Your task to perform on an android device: open app "ColorNote Notepad Notes" Image 0: 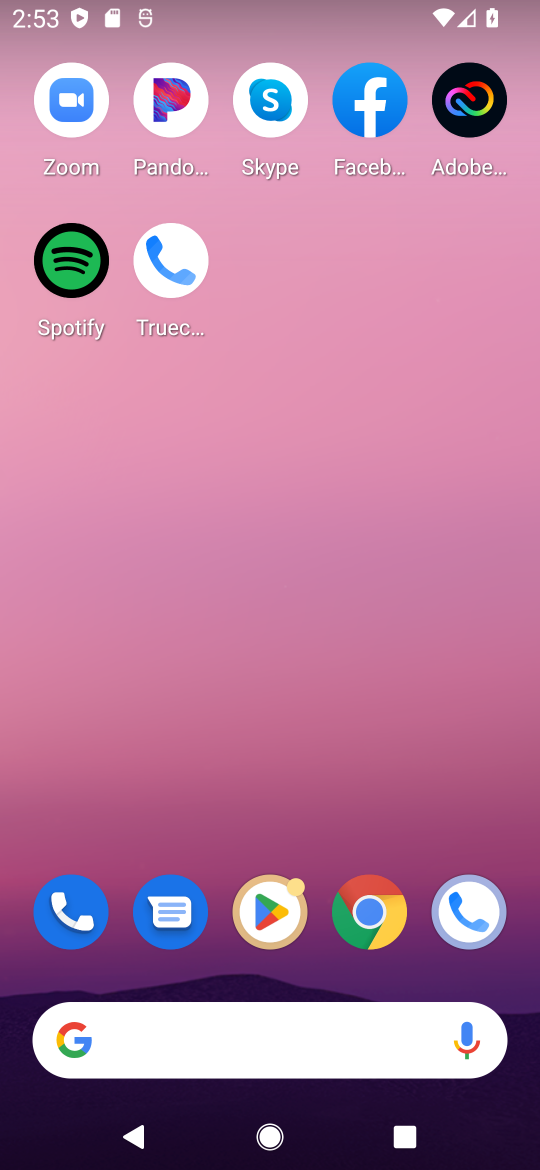
Step 0: drag from (179, 1060) to (215, 242)
Your task to perform on an android device: open app "ColorNote Notepad Notes" Image 1: 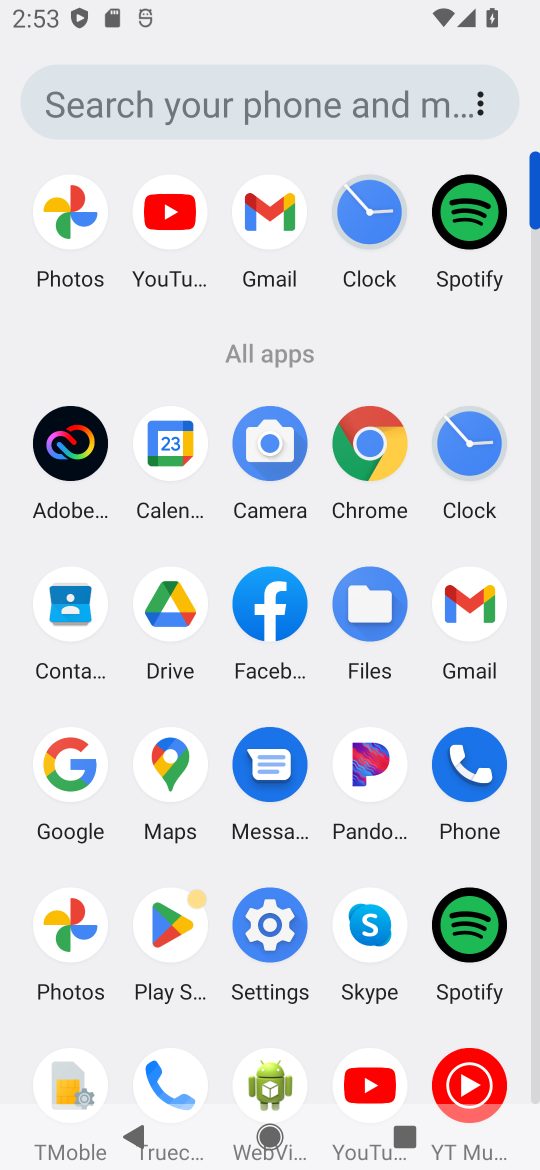
Step 1: click (178, 929)
Your task to perform on an android device: open app "ColorNote Notepad Notes" Image 2: 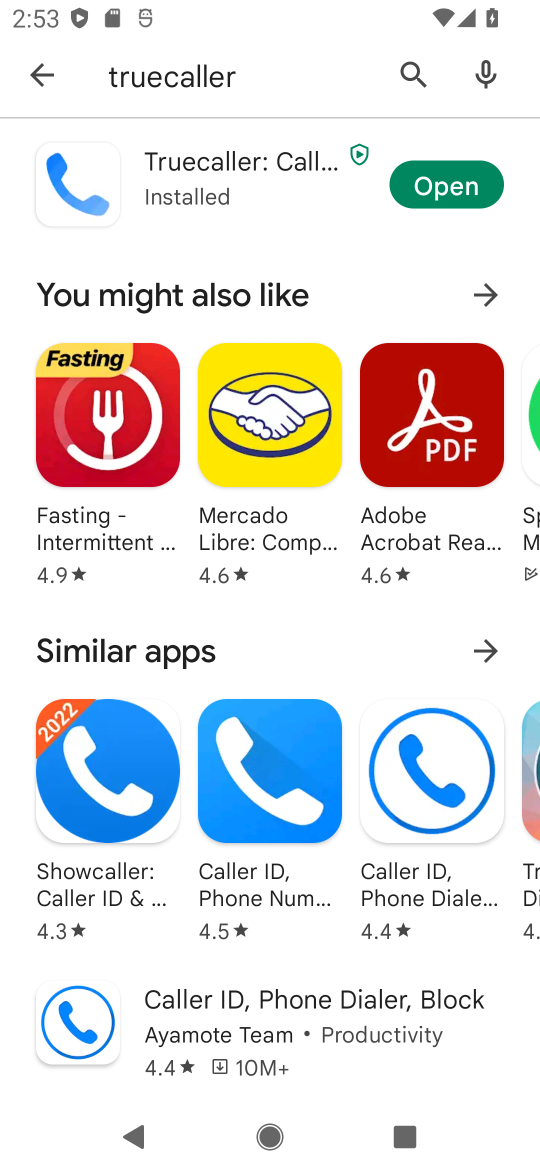
Step 2: press back button
Your task to perform on an android device: open app "ColorNote Notepad Notes" Image 3: 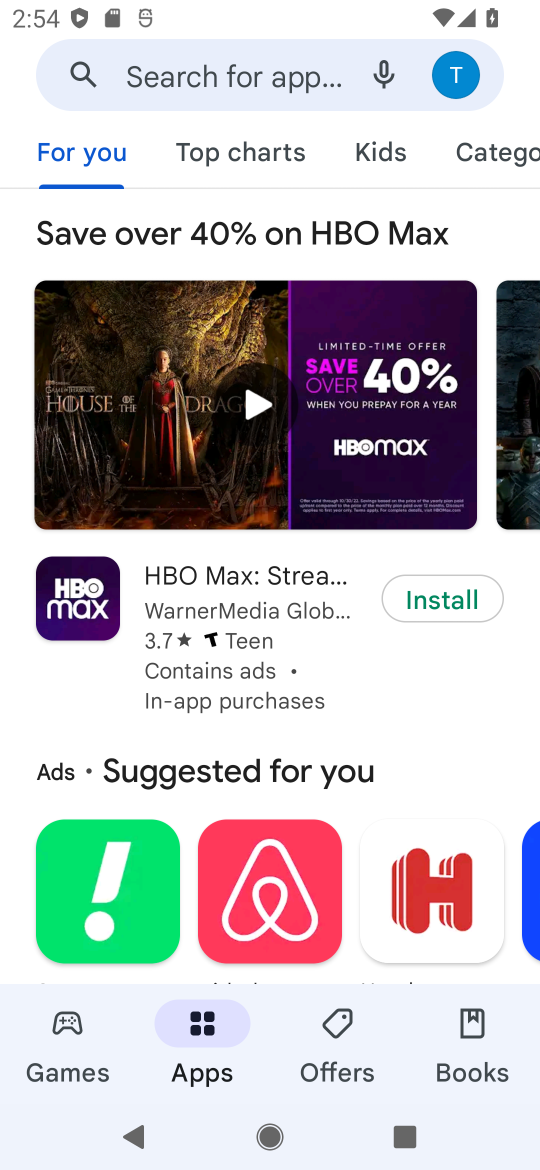
Step 3: click (256, 64)
Your task to perform on an android device: open app "ColorNote Notepad Notes" Image 4: 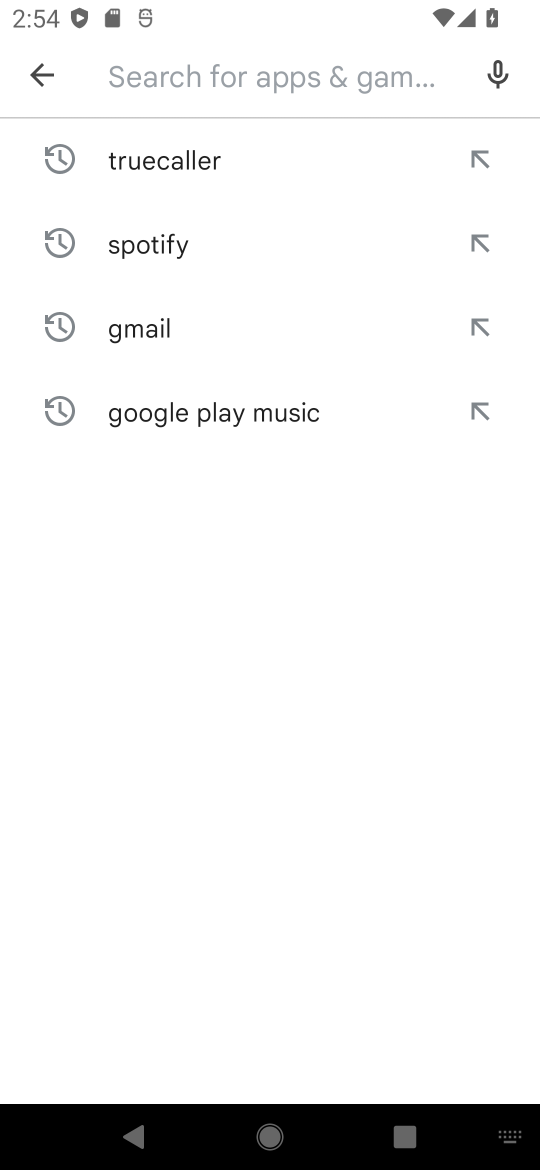
Step 4: click (171, 71)
Your task to perform on an android device: open app "ColorNote Notepad Notes" Image 5: 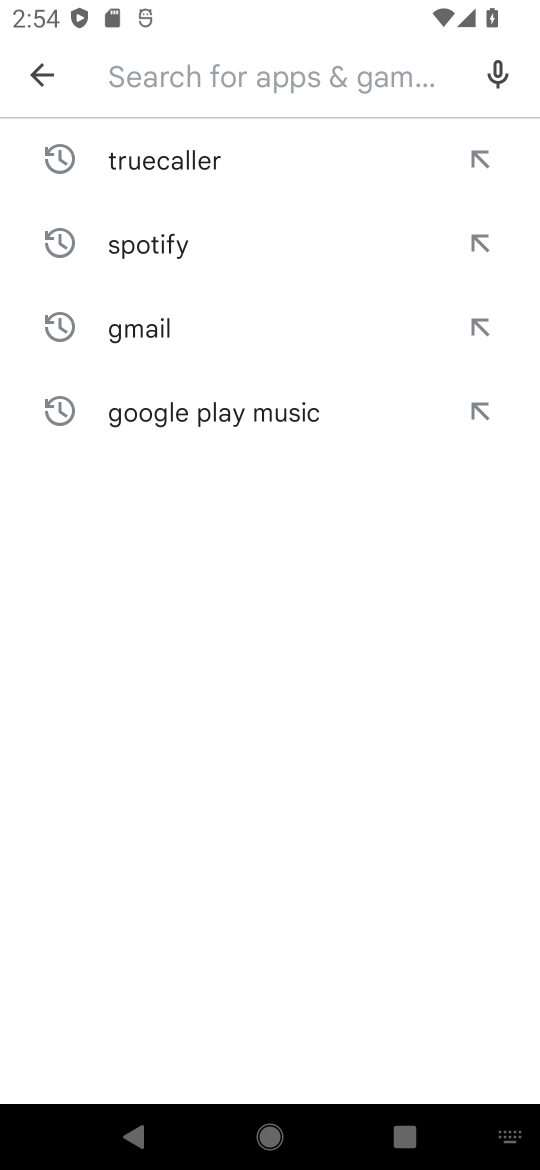
Step 5: type "ColorNote Notepad Notes"
Your task to perform on an android device: open app "ColorNote Notepad Notes" Image 6: 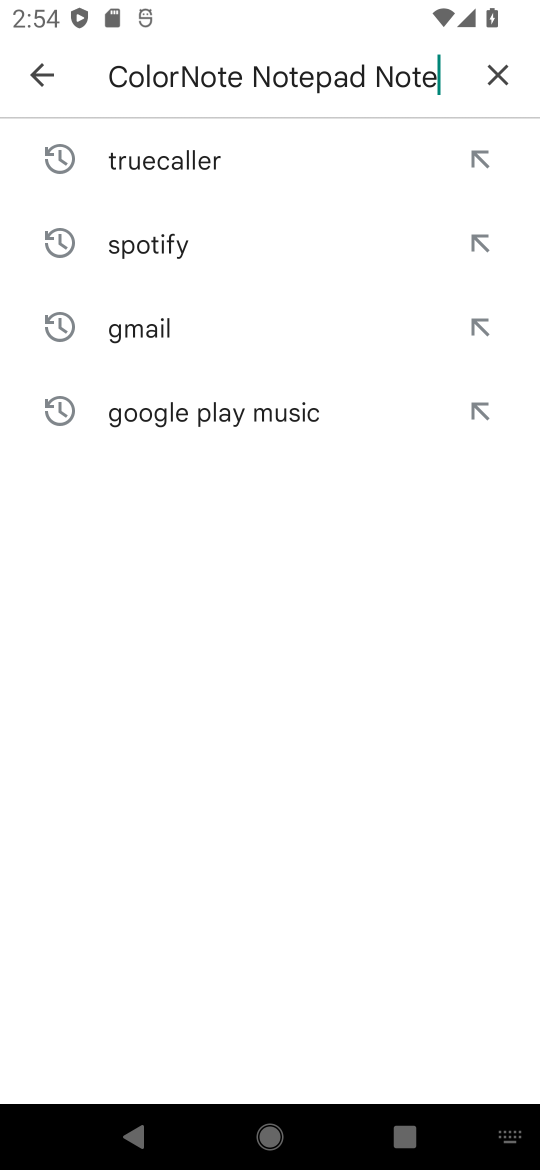
Step 6: type ""
Your task to perform on an android device: open app "ColorNote Notepad Notes" Image 7: 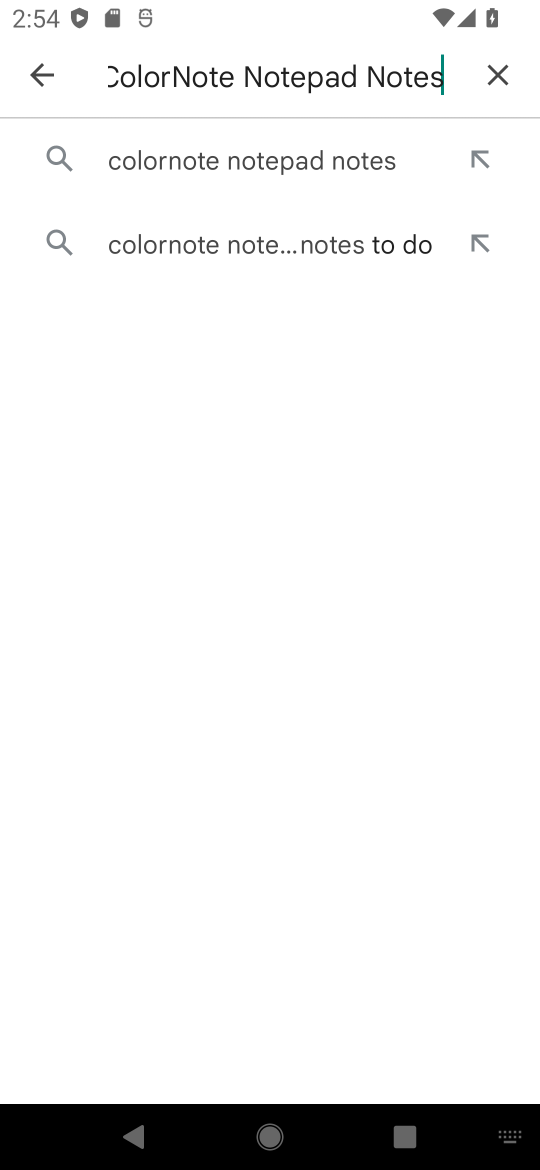
Step 7: click (214, 171)
Your task to perform on an android device: open app "ColorNote Notepad Notes" Image 8: 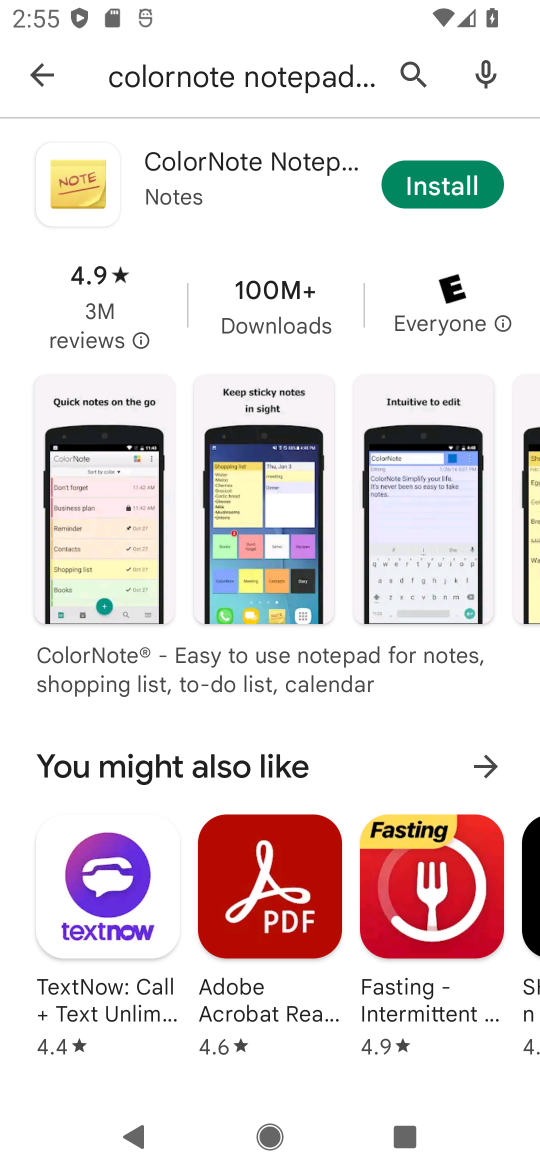
Step 8: task complete